Your task to perform on an android device: Go to notification settings Image 0: 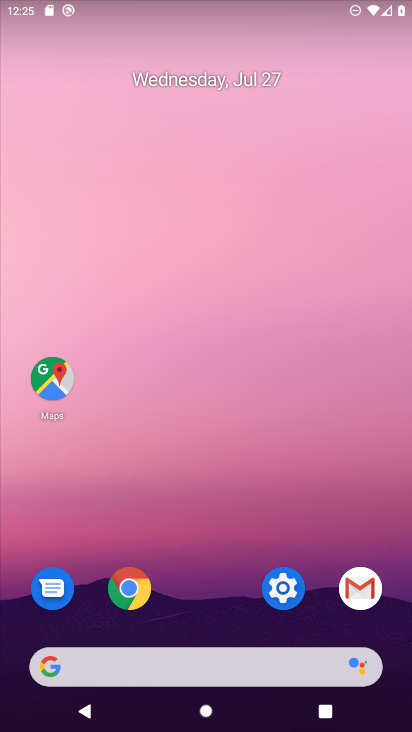
Step 0: drag from (221, 690) to (259, 247)
Your task to perform on an android device: Go to notification settings Image 1: 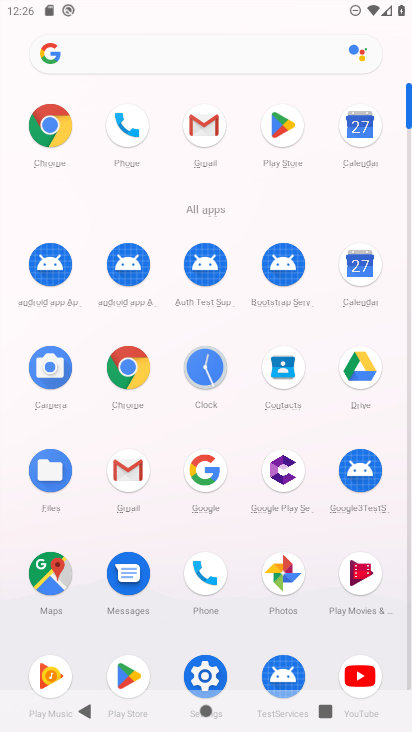
Step 1: click (202, 659)
Your task to perform on an android device: Go to notification settings Image 2: 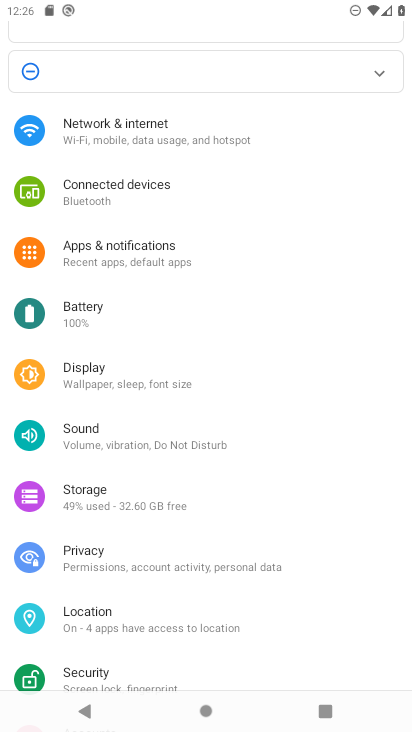
Step 2: drag from (241, 243) to (171, 434)
Your task to perform on an android device: Go to notification settings Image 3: 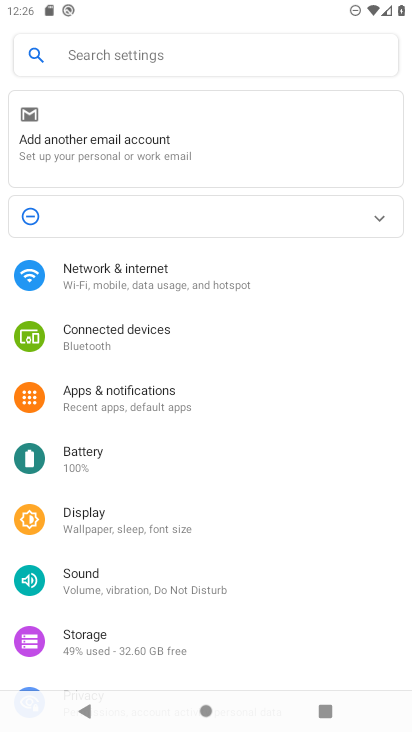
Step 3: click (112, 58)
Your task to perform on an android device: Go to notification settings Image 4: 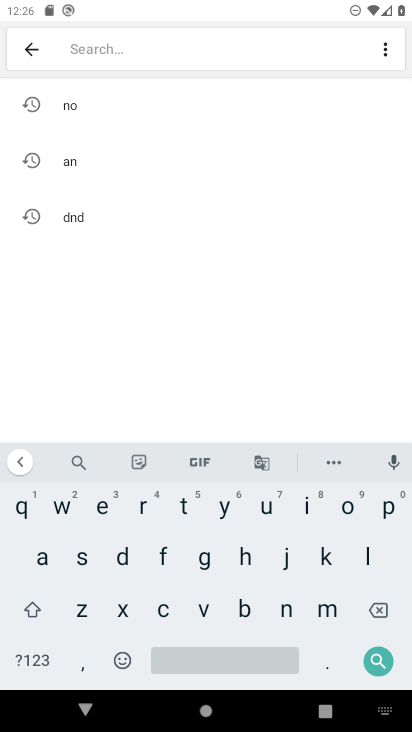
Step 4: click (278, 612)
Your task to perform on an android device: Go to notification settings Image 5: 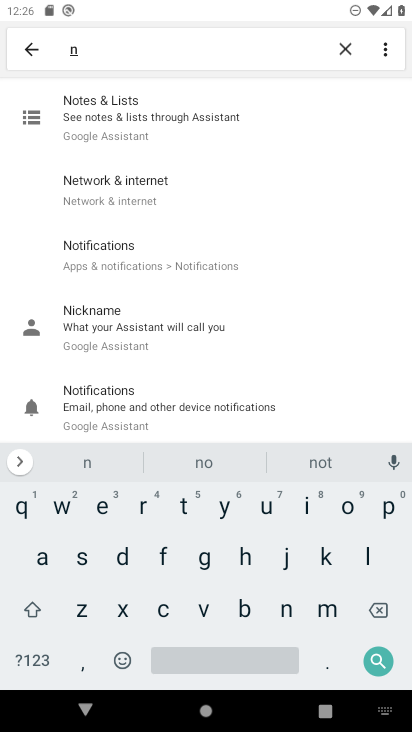
Step 5: click (339, 503)
Your task to perform on an android device: Go to notification settings Image 6: 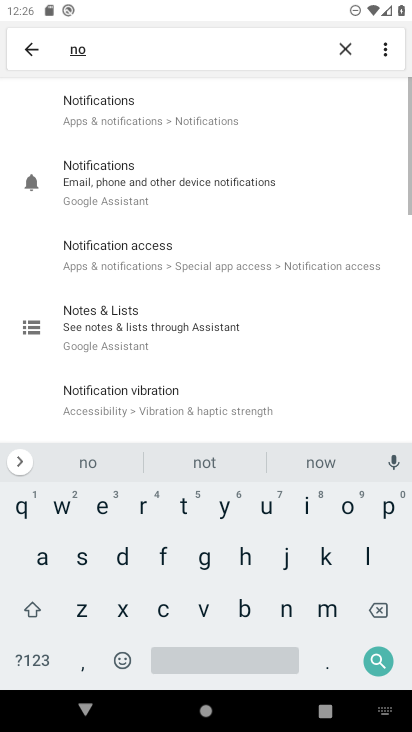
Step 6: click (131, 120)
Your task to perform on an android device: Go to notification settings Image 7: 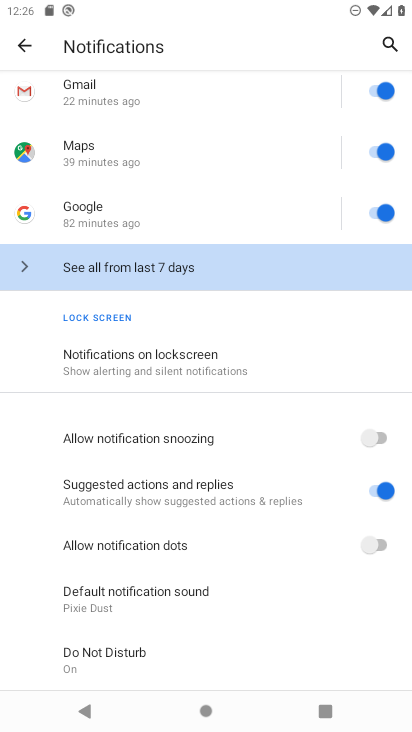
Step 7: click (104, 361)
Your task to perform on an android device: Go to notification settings Image 8: 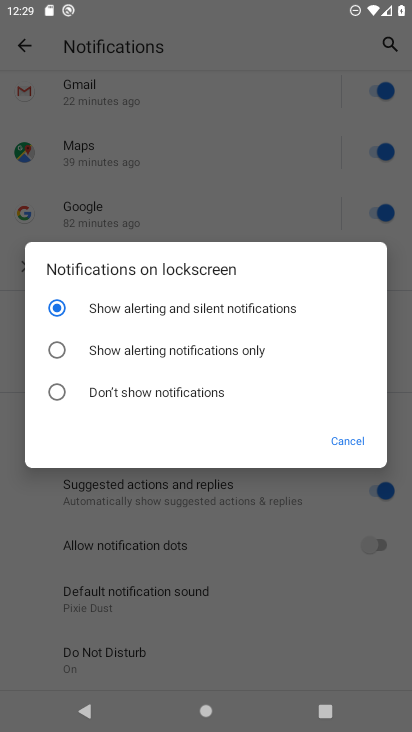
Step 8: task complete